Your task to perform on an android device: change the clock display to analog Image 0: 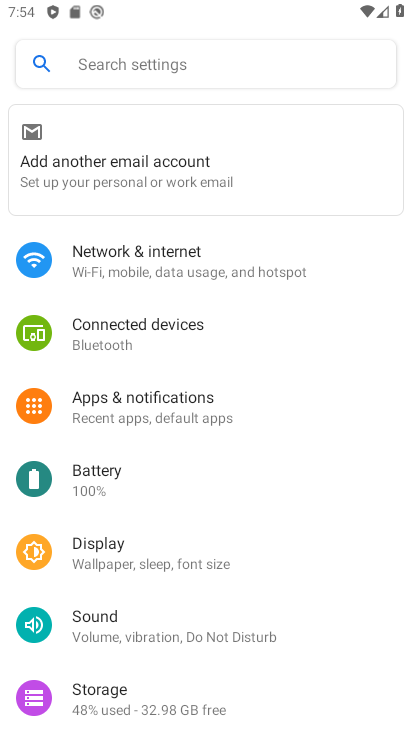
Step 0: press home button
Your task to perform on an android device: change the clock display to analog Image 1: 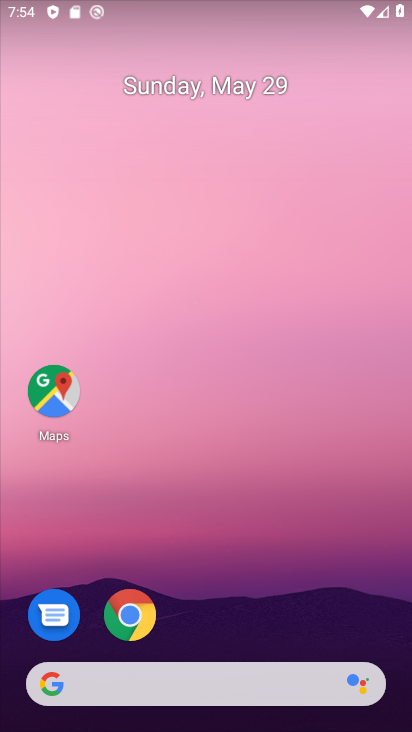
Step 1: drag from (299, 619) to (274, 153)
Your task to perform on an android device: change the clock display to analog Image 2: 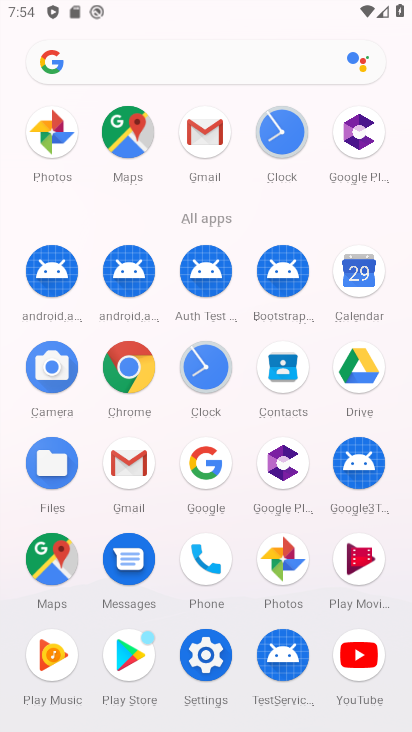
Step 2: click (284, 130)
Your task to perform on an android device: change the clock display to analog Image 3: 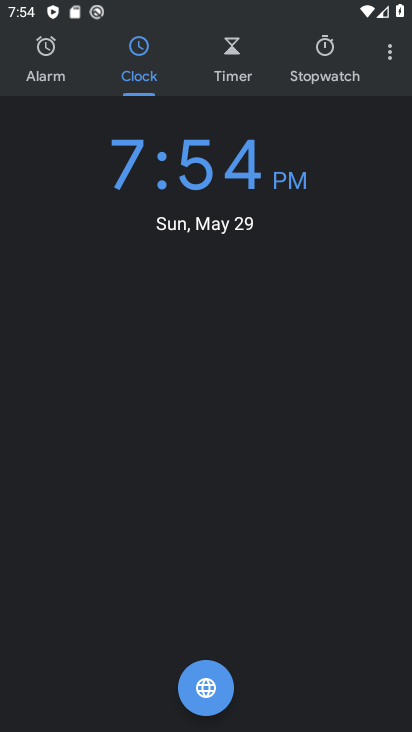
Step 3: click (388, 50)
Your task to perform on an android device: change the clock display to analog Image 4: 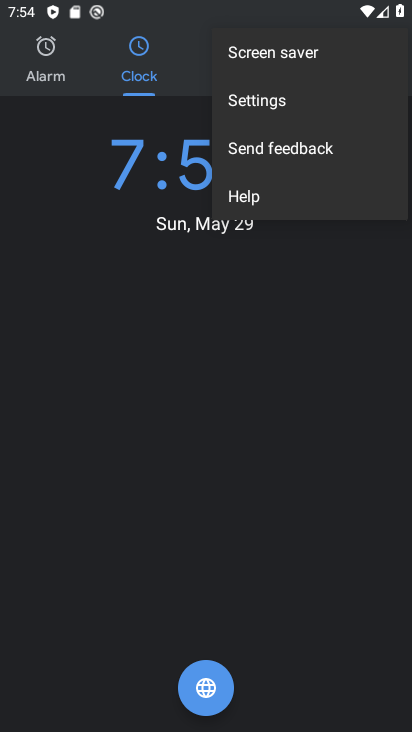
Step 4: click (284, 102)
Your task to perform on an android device: change the clock display to analog Image 5: 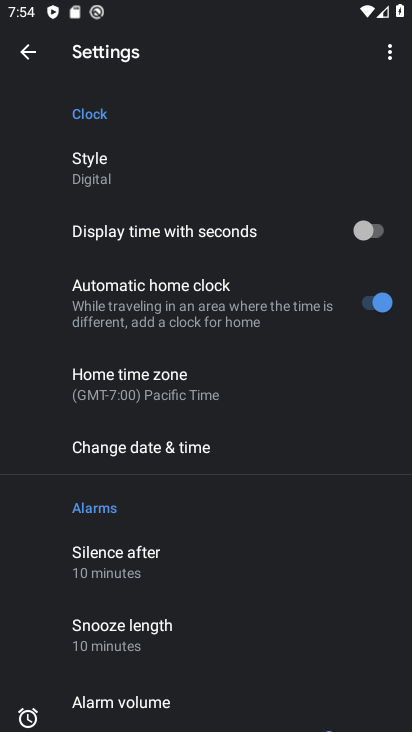
Step 5: click (130, 178)
Your task to perform on an android device: change the clock display to analog Image 6: 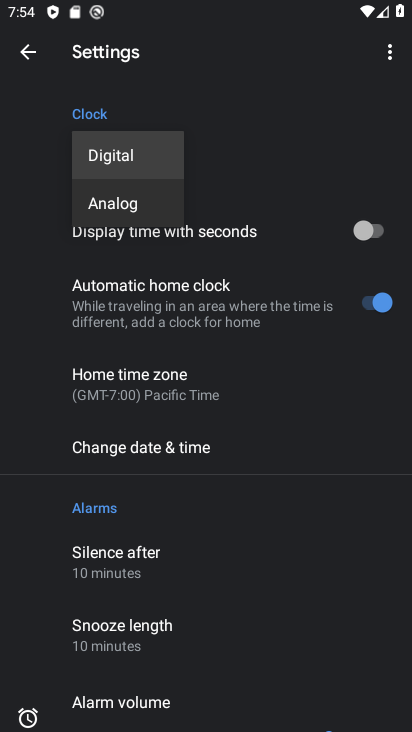
Step 6: click (133, 181)
Your task to perform on an android device: change the clock display to analog Image 7: 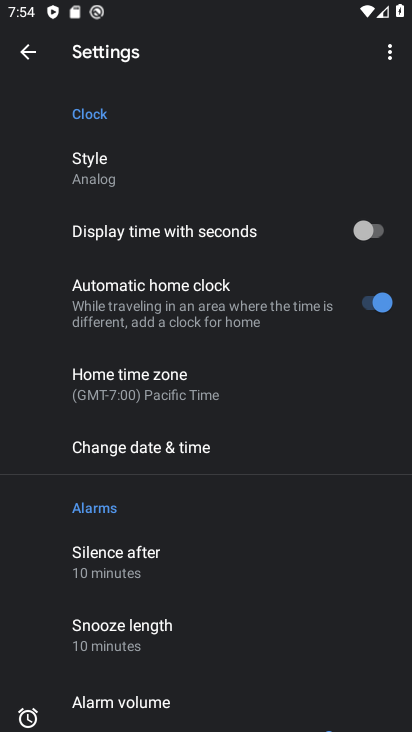
Step 7: task complete